Your task to perform on an android device: turn on sleep mode Image 0: 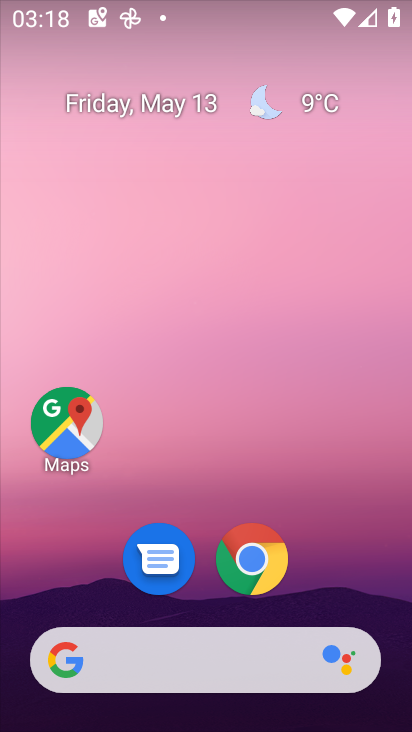
Step 0: drag from (381, 520) to (353, 258)
Your task to perform on an android device: turn on sleep mode Image 1: 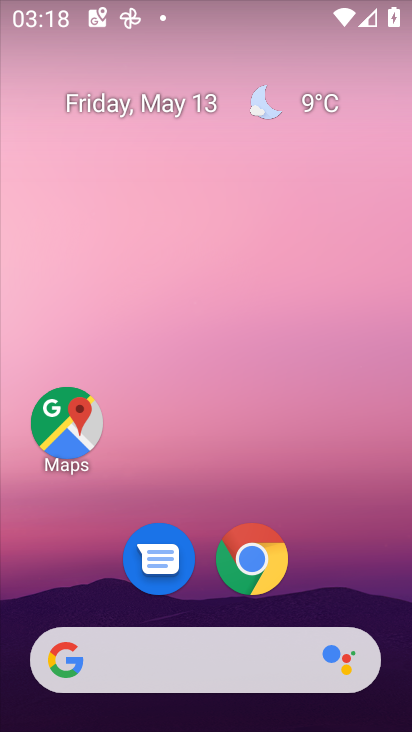
Step 1: drag from (364, 262) to (353, 198)
Your task to perform on an android device: turn on sleep mode Image 2: 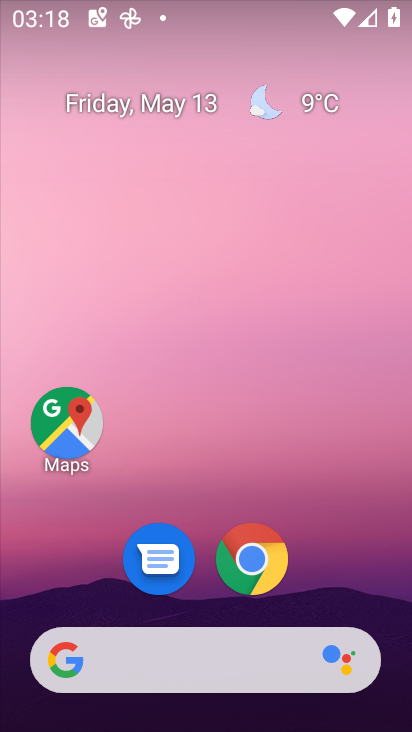
Step 2: drag from (404, 682) to (371, 319)
Your task to perform on an android device: turn on sleep mode Image 3: 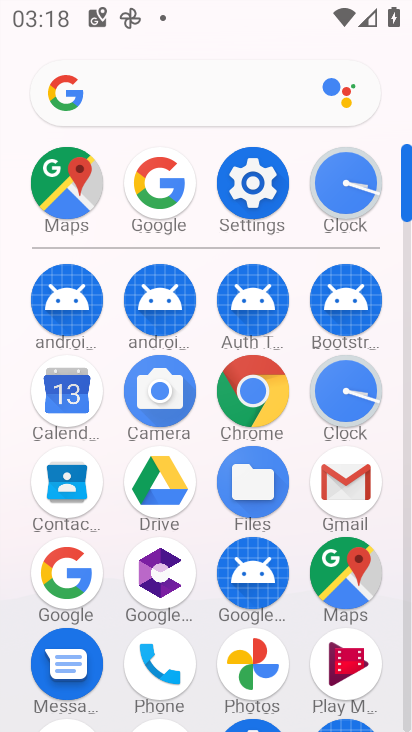
Step 3: click (267, 195)
Your task to perform on an android device: turn on sleep mode Image 4: 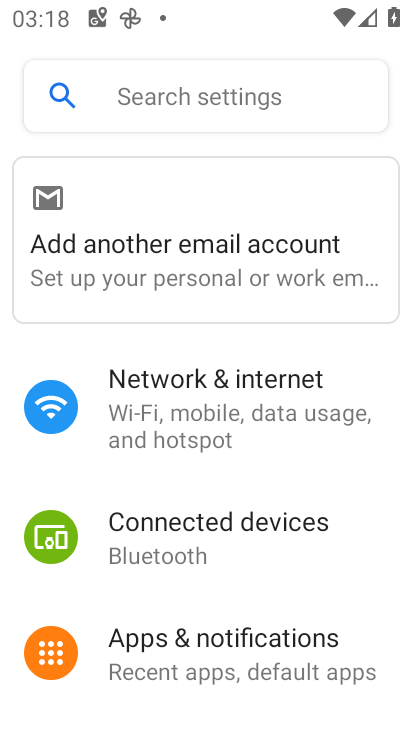
Step 4: drag from (350, 656) to (353, 417)
Your task to perform on an android device: turn on sleep mode Image 5: 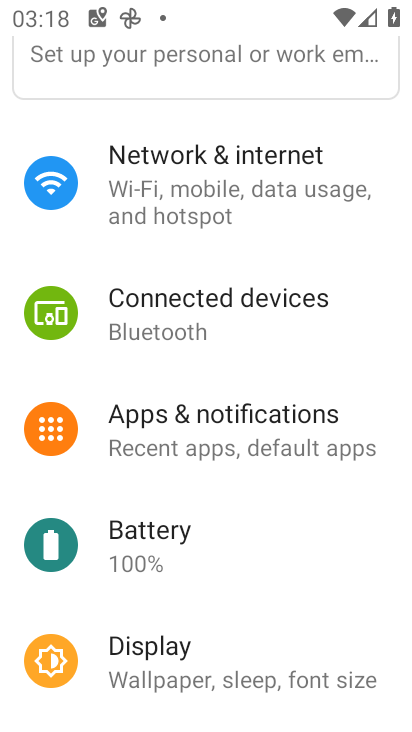
Step 5: click (159, 663)
Your task to perform on an android device: turn on sleep mode Image 6: 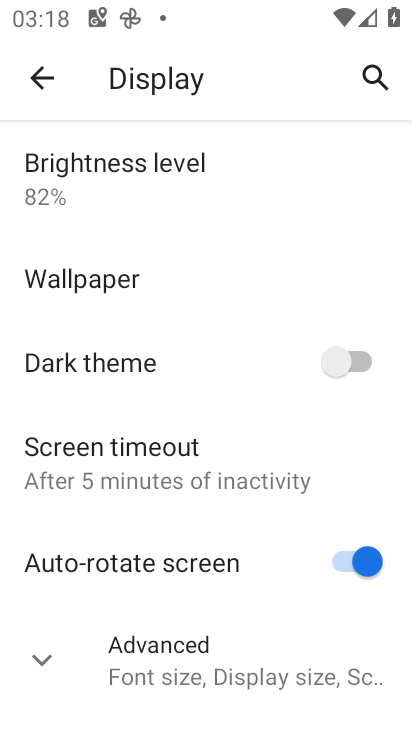
Step 6: click (93, 449)
Your task to perform on an android device: turn on sleep mode Image 7: 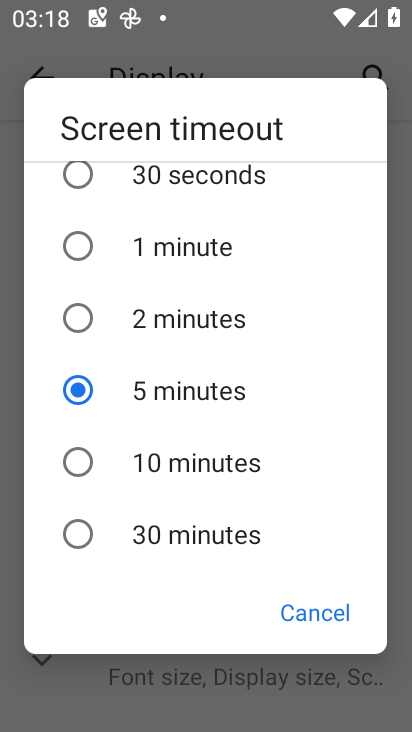
Step 7: task complete